Your task to perform on an android device: uninstall "Spotify" Image 0: 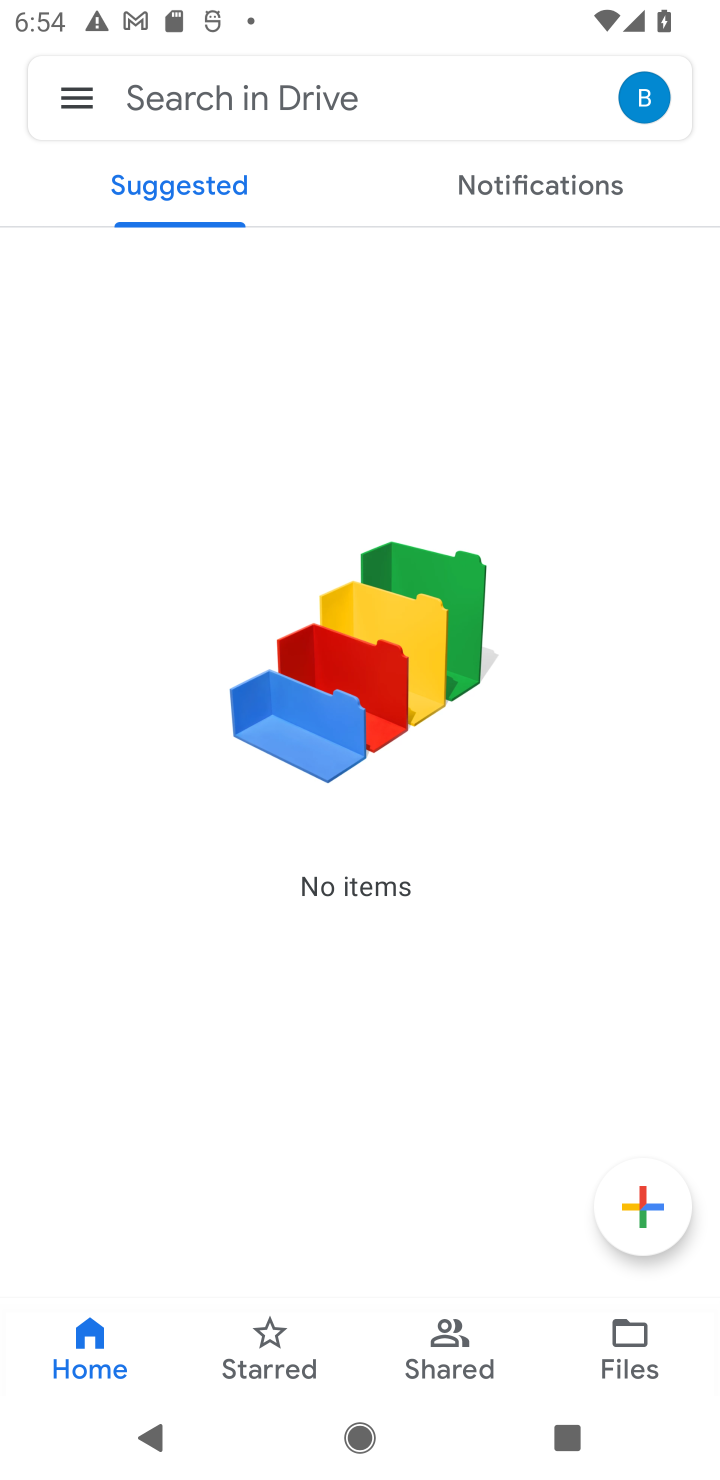
Step 0: press home button
Your task to perform on an android device: uninstall "Spotify" Image 1: 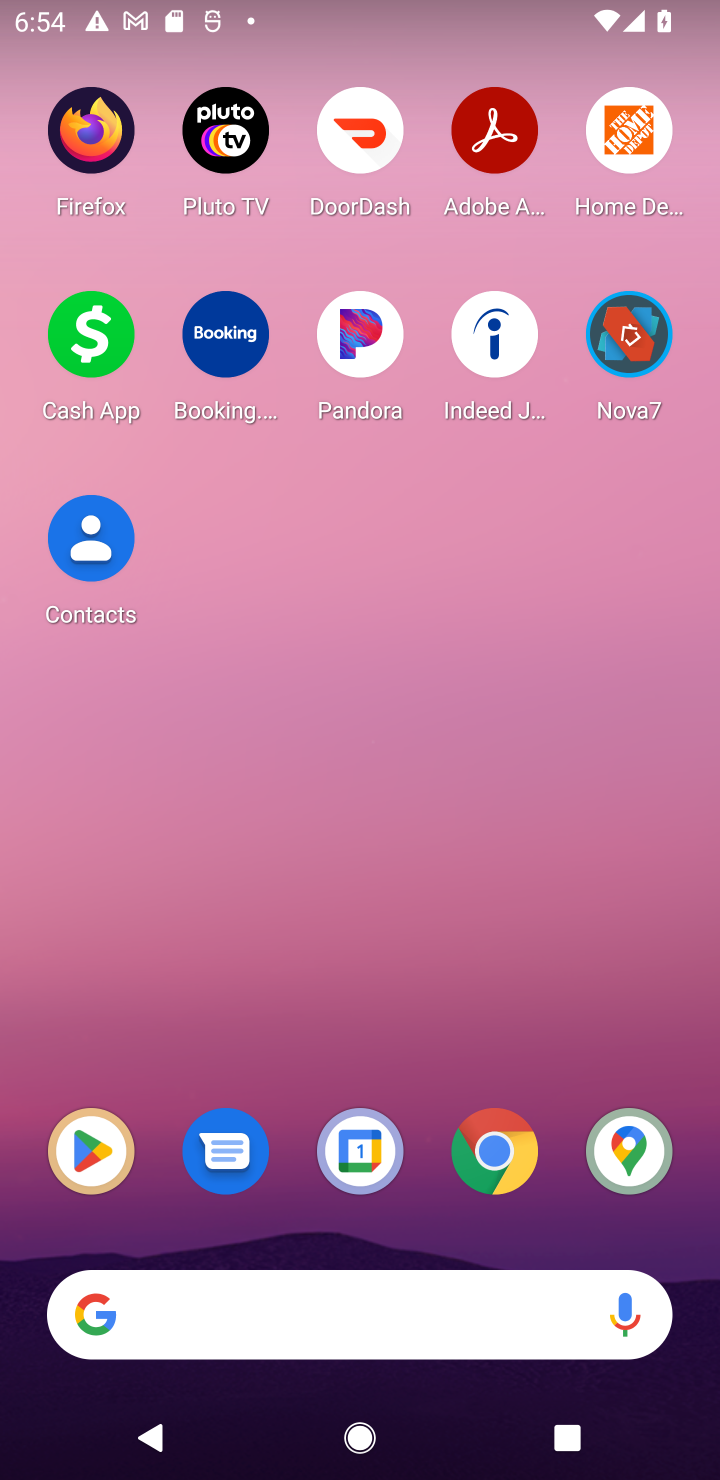
Step 1: drag from (382, 1299) to (183, 131)
Your task to perform on an android device: uninstall "Spotify" Image 2: 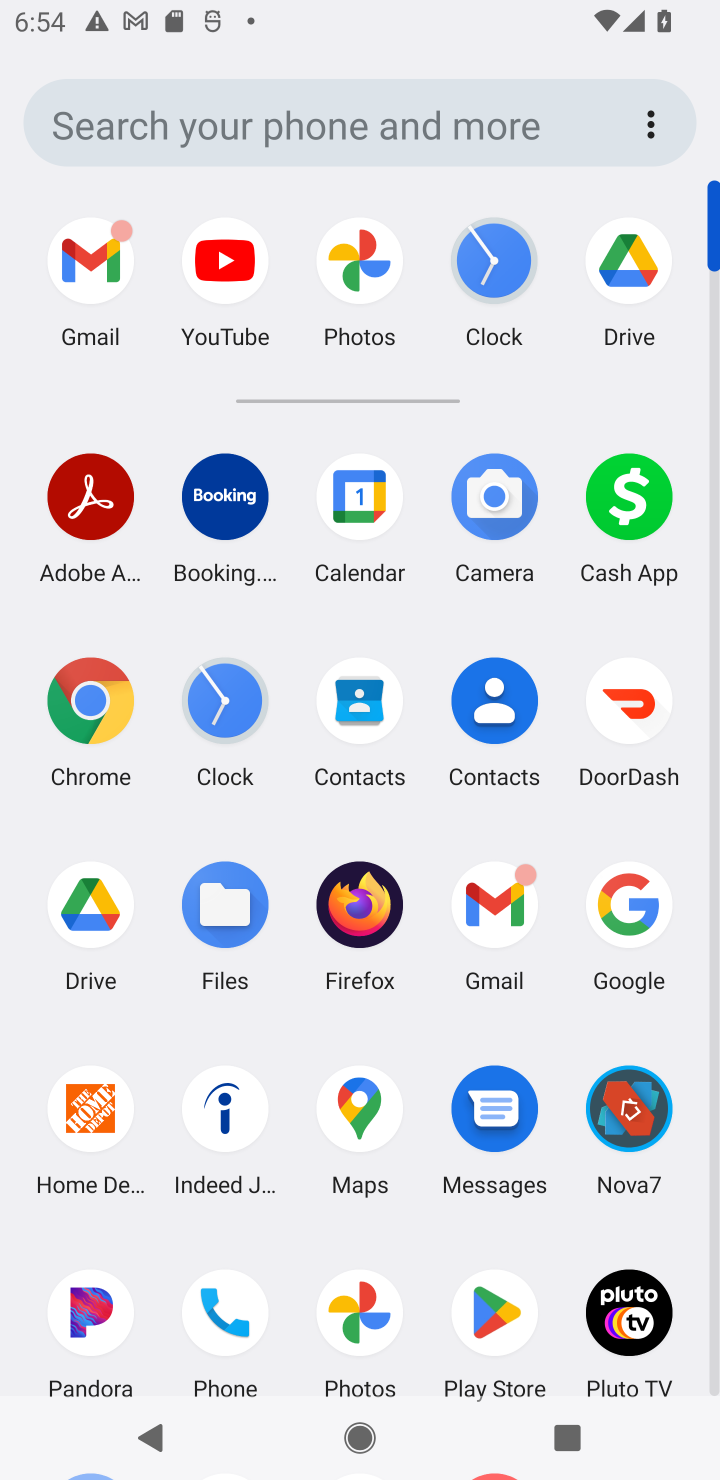
Step 2: click (511, 1270)
Your task to perform on an android device: uninstall "Spotify" Image 3: 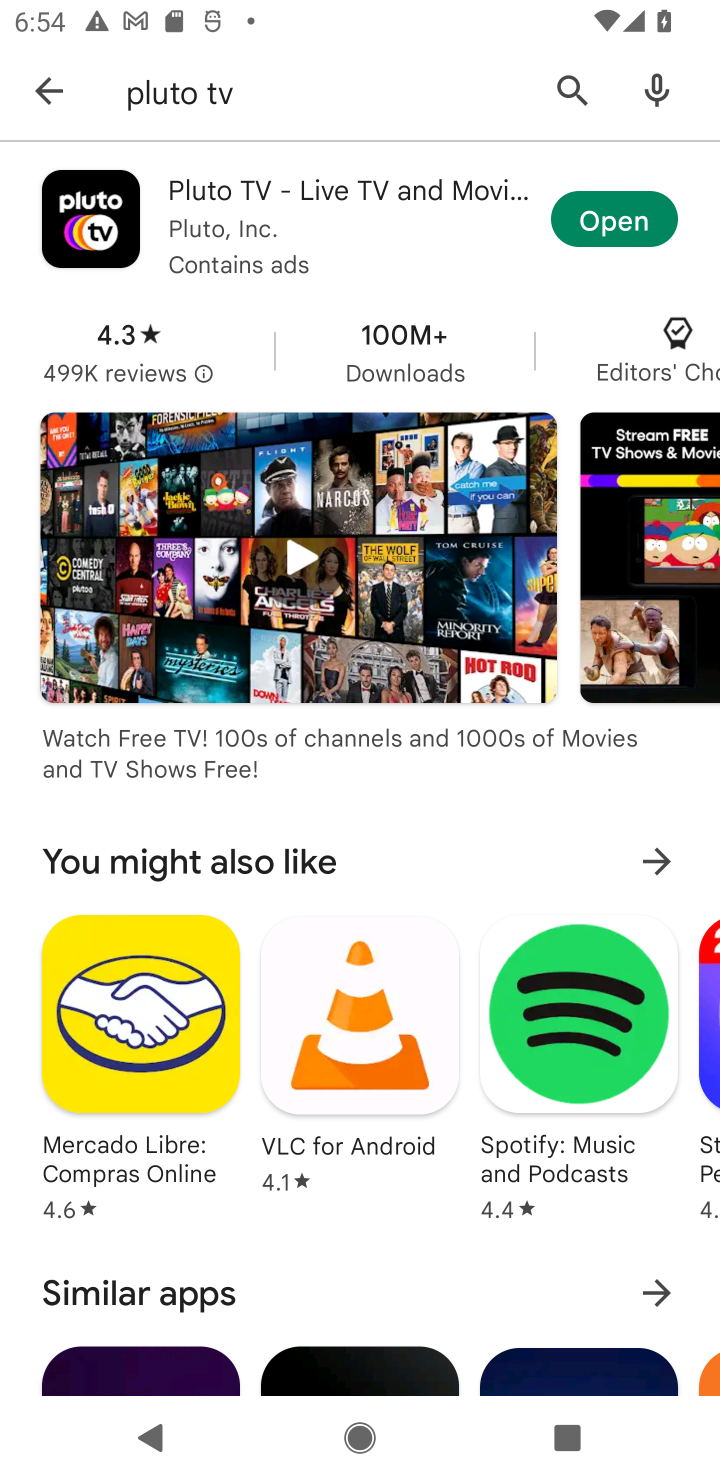
Step 3: click (560, 94)
Your task to perform on an android device: uninstall "Spotify" Image 4: 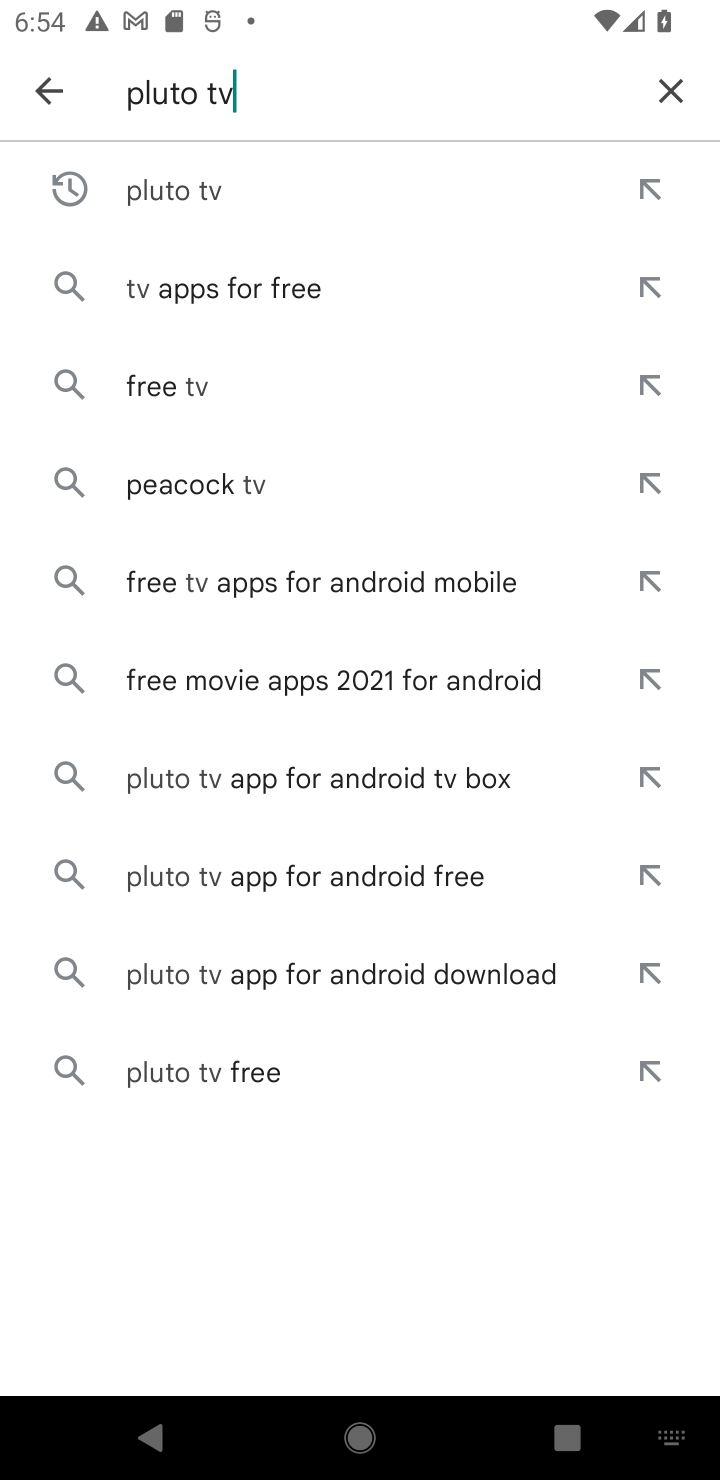
Step 4: click (654, 103)
Your task to perform on an android device: uninstall "Spotify" Image 5: 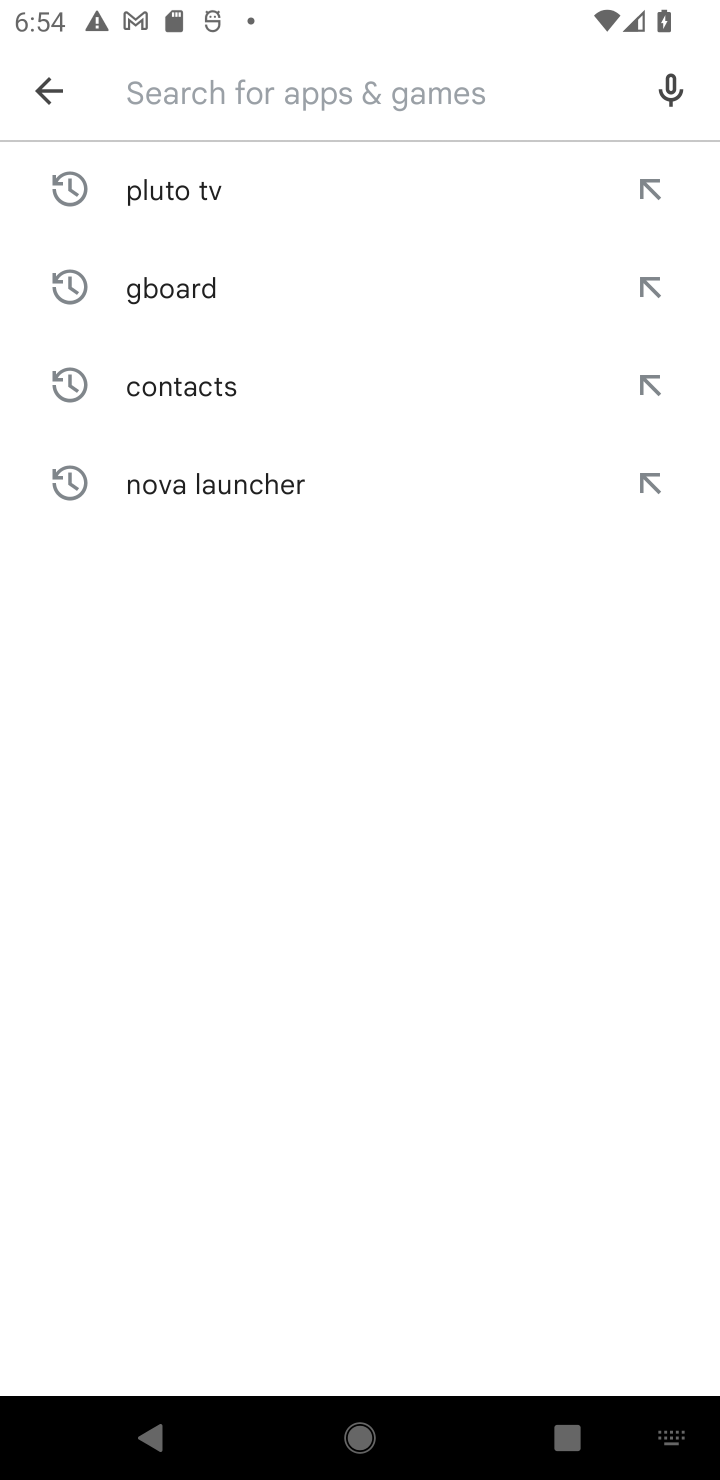
Step 5: type "spotify"
Your task to perform on an android device: uninstall "Spotify" Image 6: 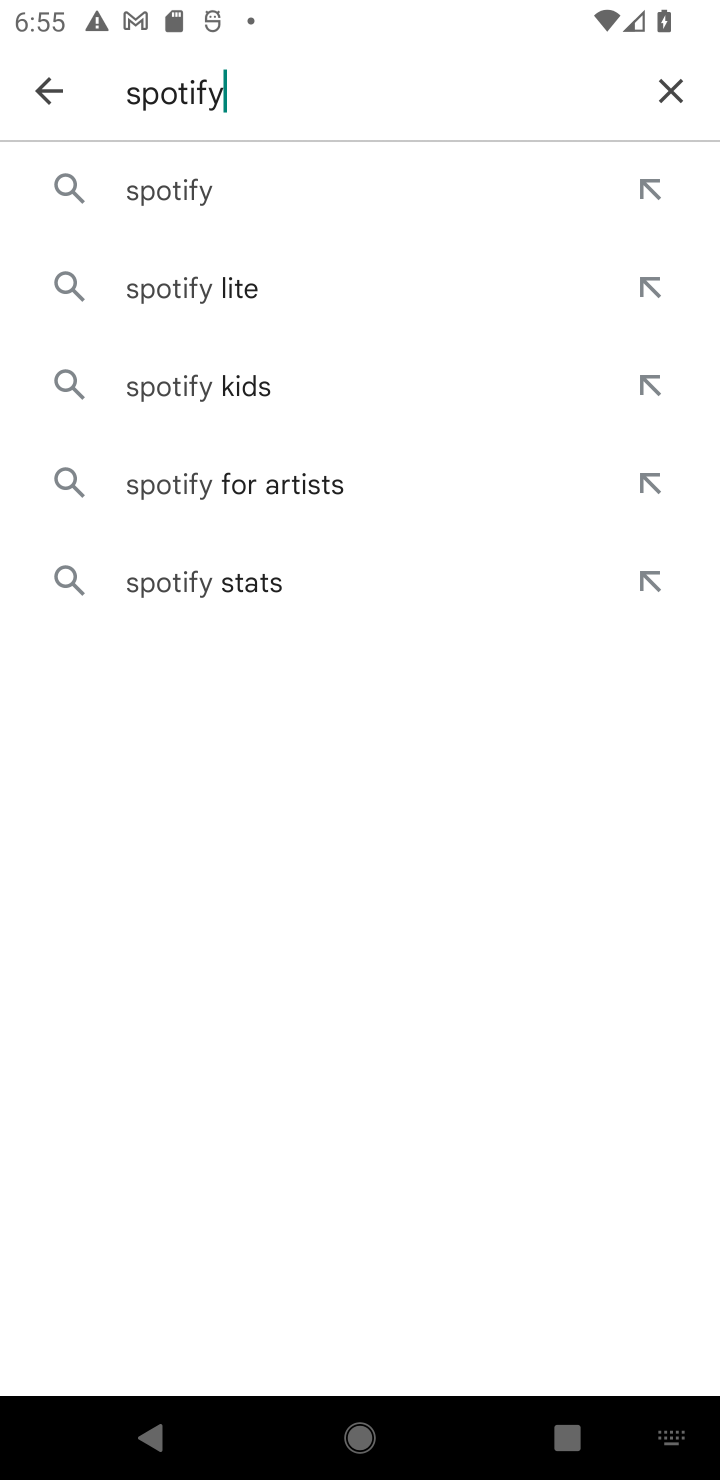
Step 6: click (128, 185)
Your task to perform on an android device: uninstall "Spotify" Image 7: 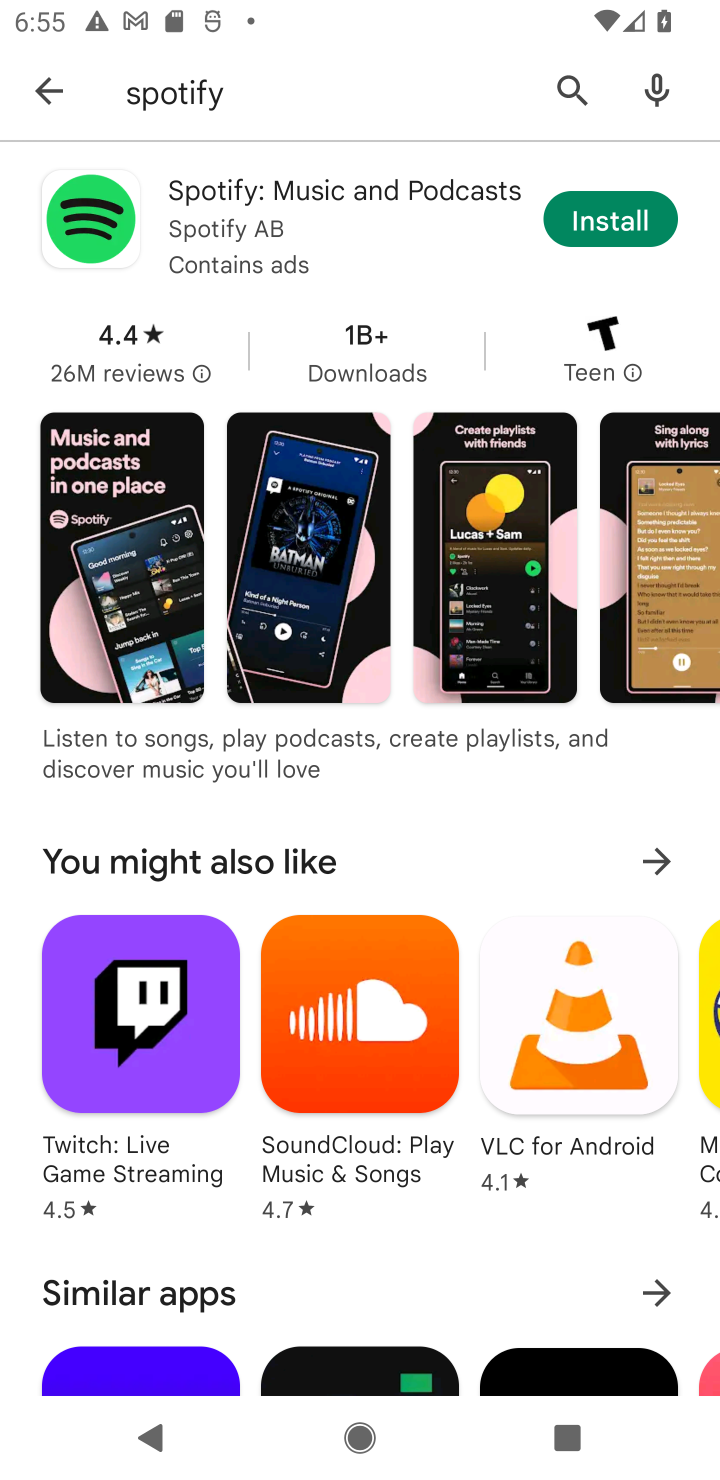
Step 7: task complete